Your task to perform on an android device: open chrome and create a bookmark for the current page Image 0: 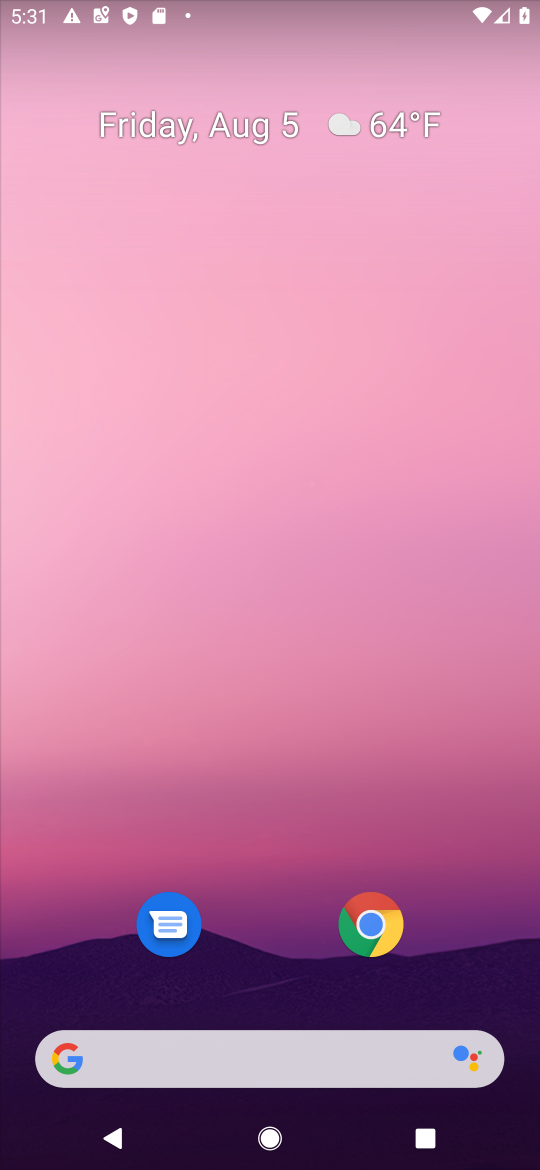
Step 0: click (385, 918)
Your task to perform on an android device: open chrome and create a bookmark for the current page Image 1: 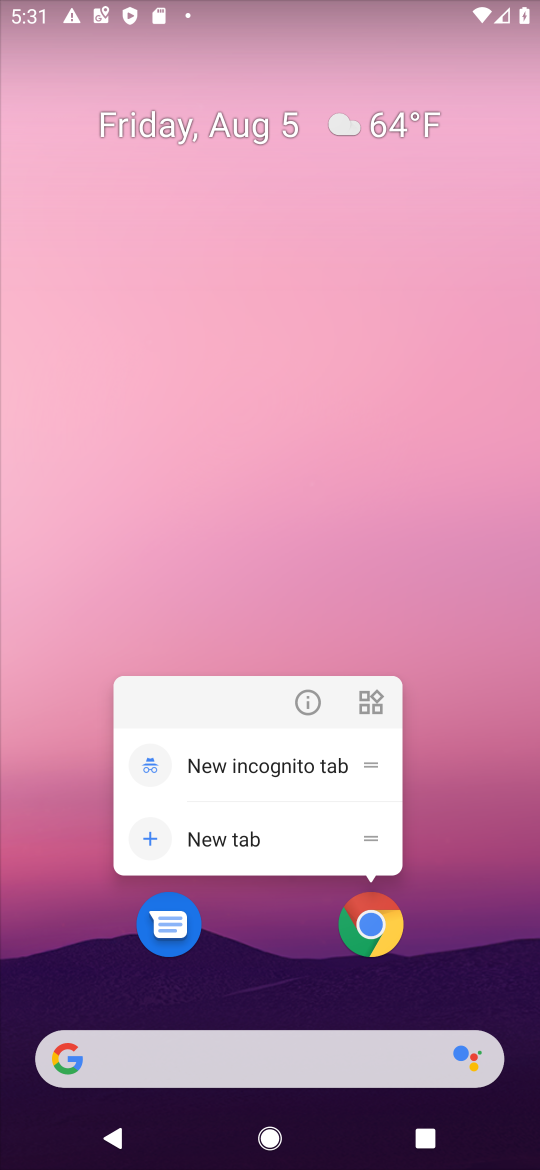
Step 1: click (389, 898)
Your task to perform on an android device: open chrome and create a bookmark for the current page Image 2: 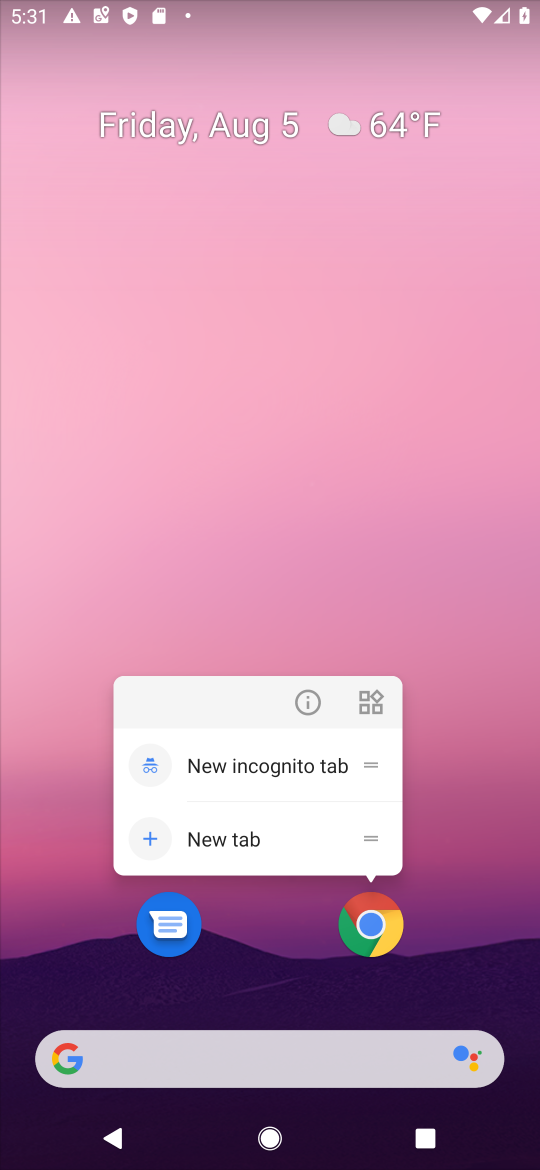
Step 2: click (383, 908)
Your task to perform on an android device: open chrome and create a bookmark for the current page Image 3: 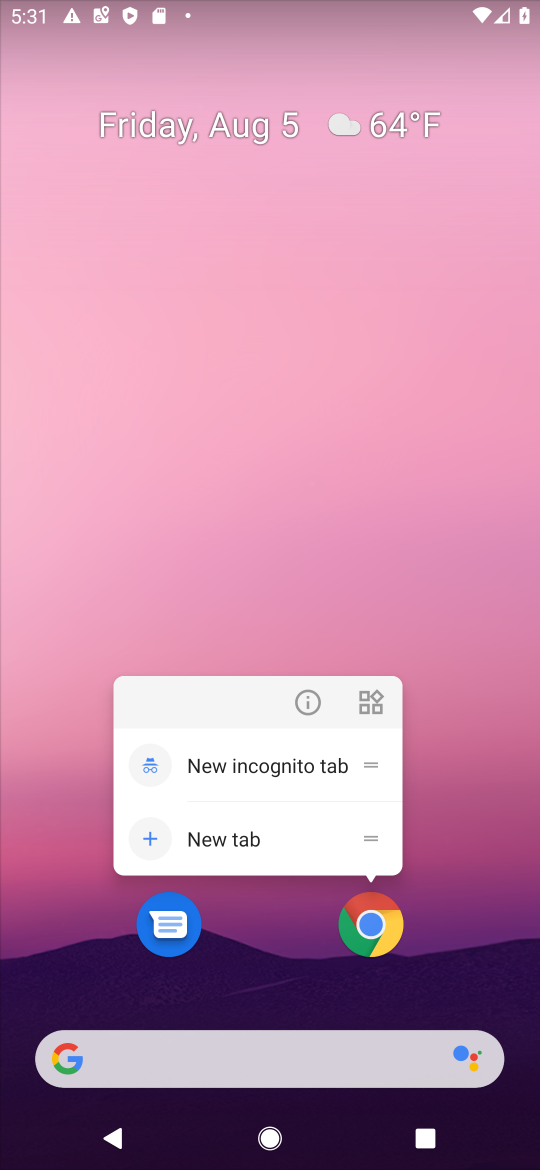
Step 3: click (383, 908)
Your task to perform on an android device: open chrome and create a bookmark for the current page Image 4: 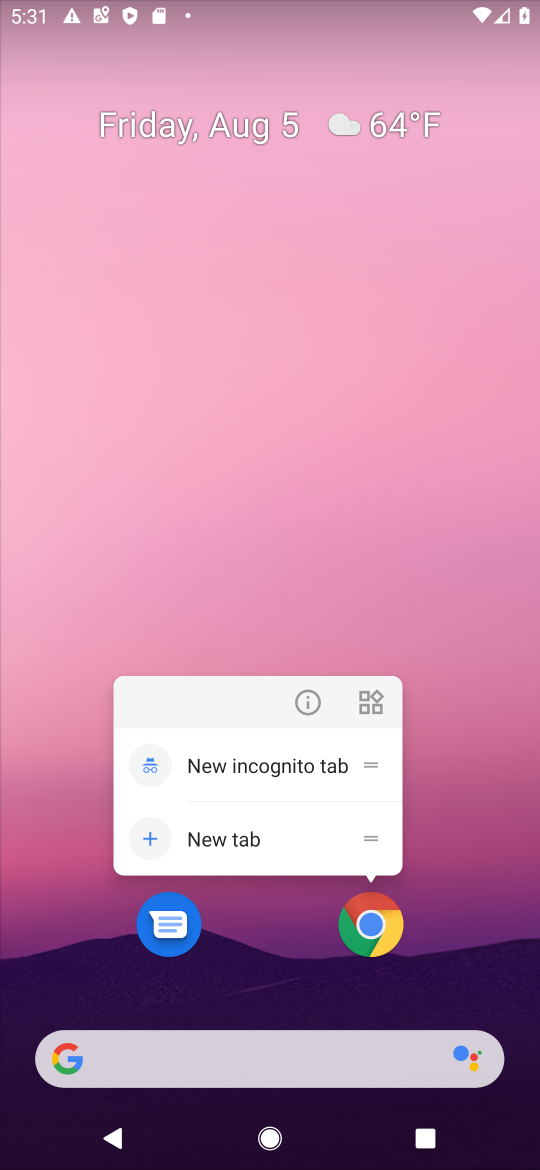
Step 4: click (383, 908)
Your task to perform on an android device: open chrome and create a bookmark for the current page Image 5: 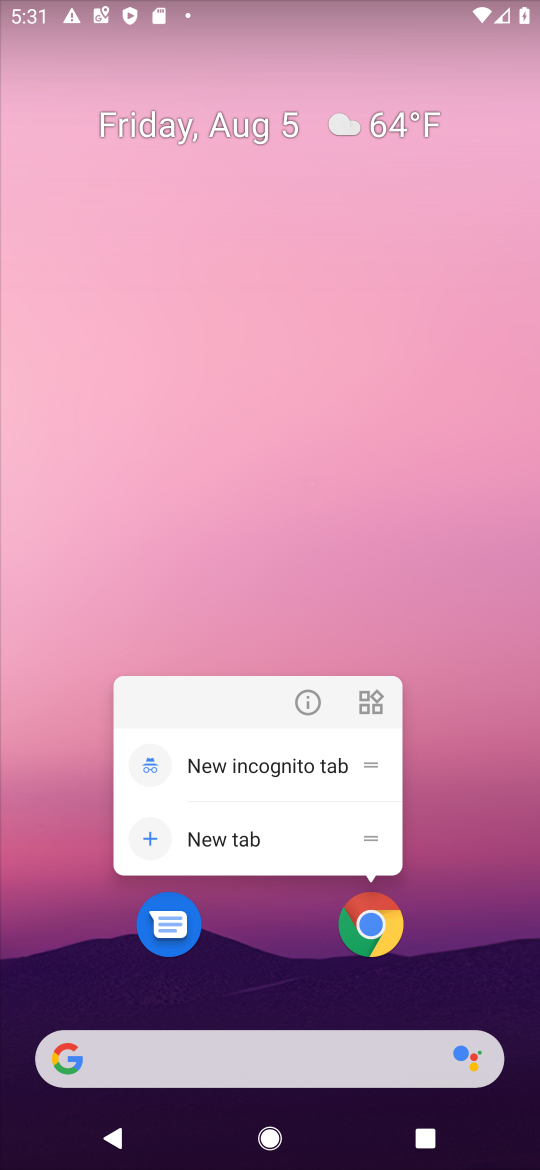
Step 5: click (383, 908)
Your task to perform on an android device: open chrome and create a bookmark for the current page Image 6: 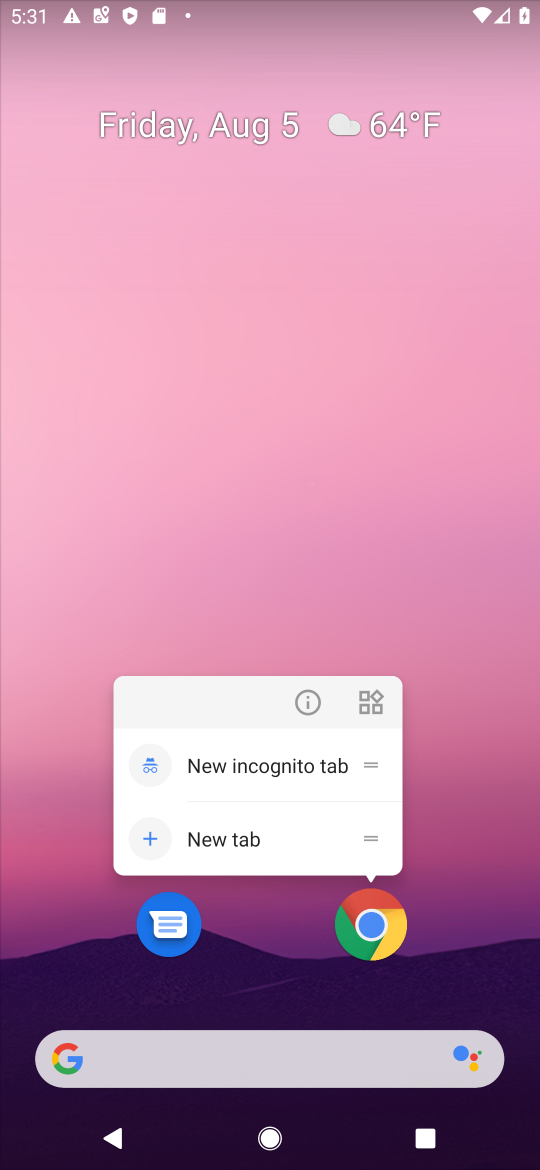
Step 6: click (383, 908)
Your task to perform on an android device: open chrome and create a bookmark for the current page Image 7: 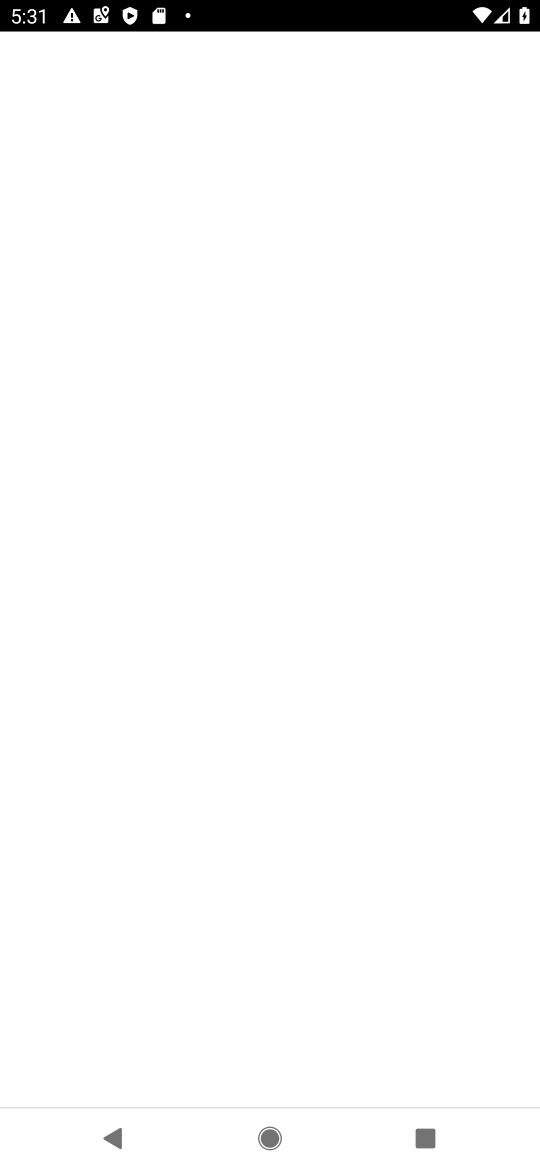
Step 7: click (383, 908)
Your task to perform on an android device: open chrome and create a bookmark for the current page Image 8: 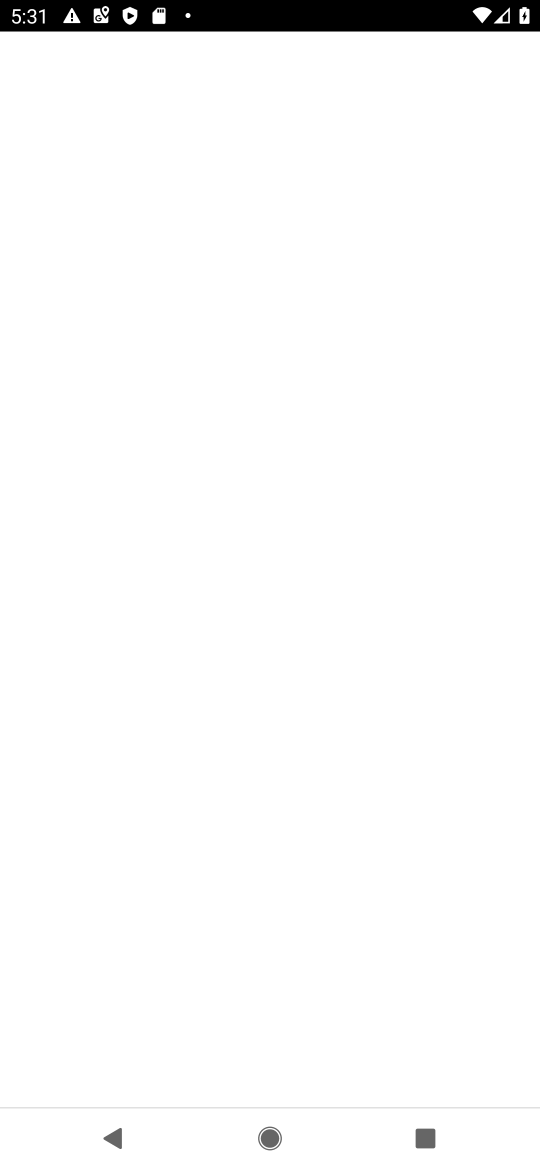
Step 8: click (383, 908)
Your task to perform on an android device: open chrome and create a bookmark for the current page Image 9: 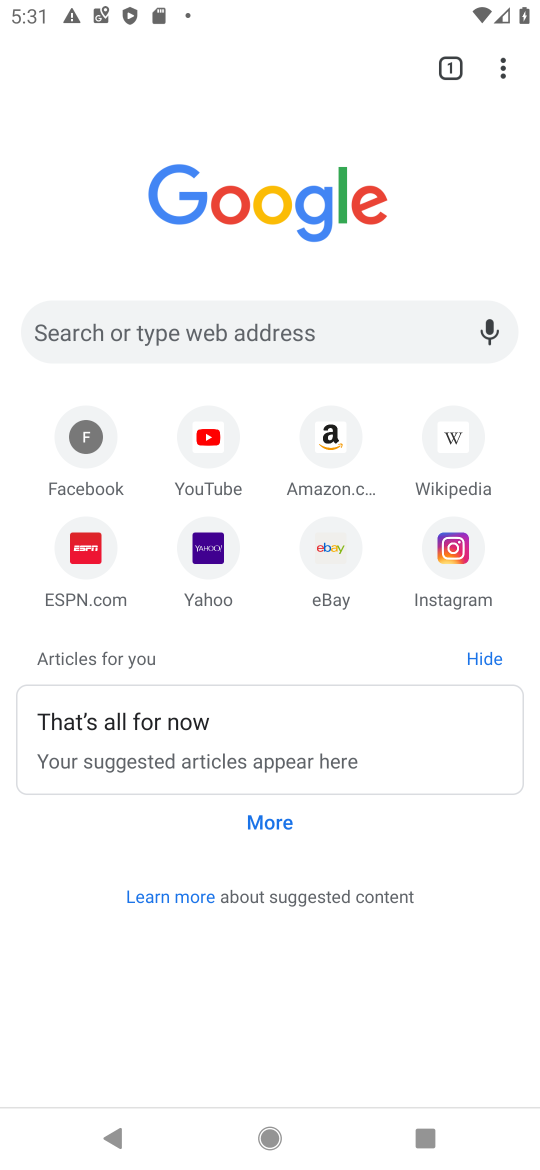
Step 9: click (498, 57)
Your task to perform on an android device: open chrome and create a bookmark for the current page Image 10: 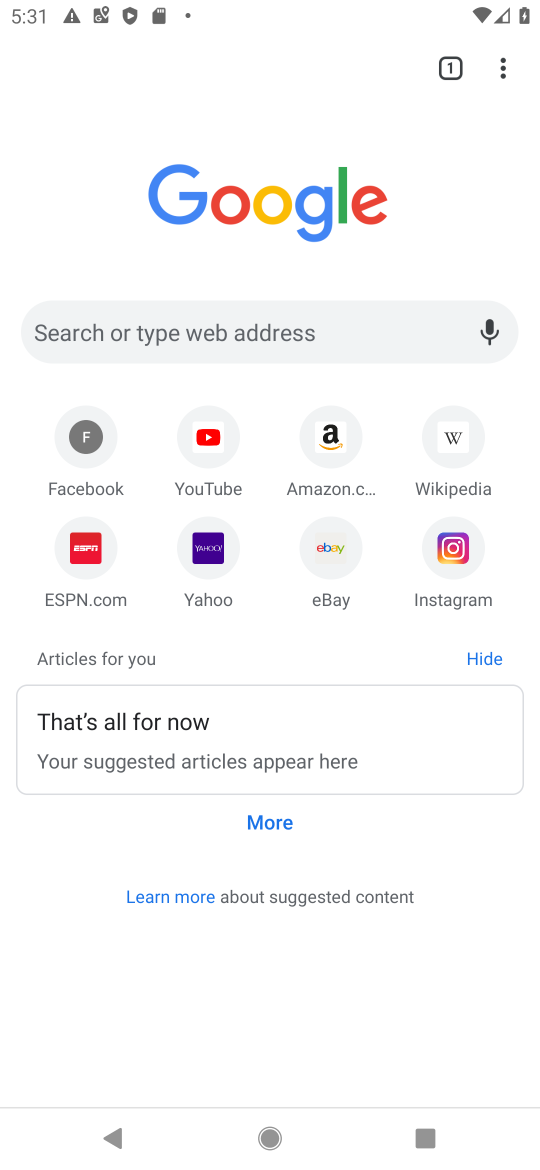
Step 10: click (507, 64)
Your task to perform on an android device: open chrome and create a bookmark for the current page Image 11: 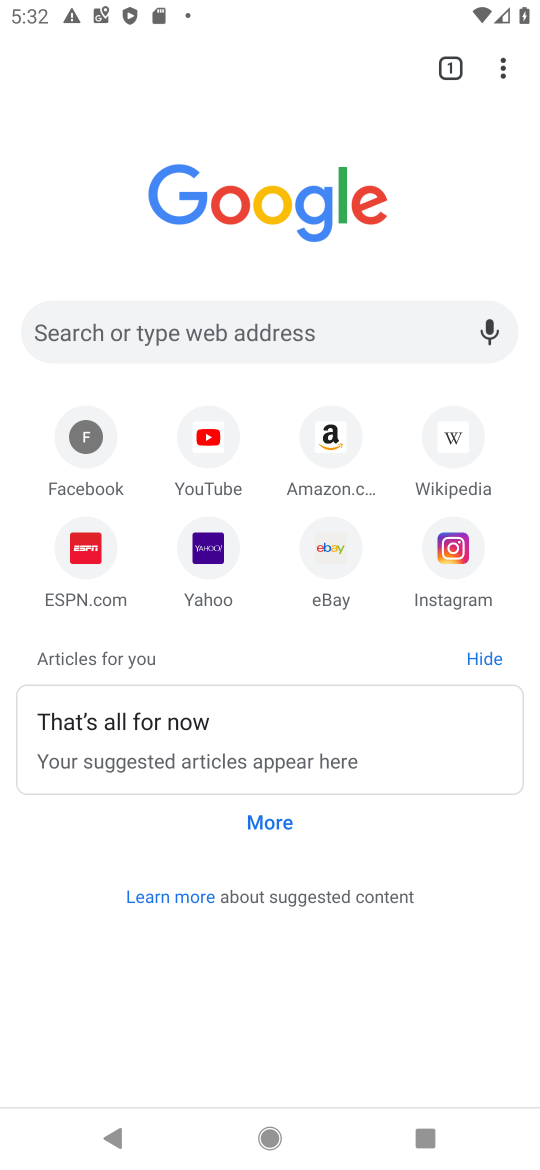
Step 11: click (509, 72)
Your task to perform on an android device: open chrome and create a bookmark for the current page Image 12: 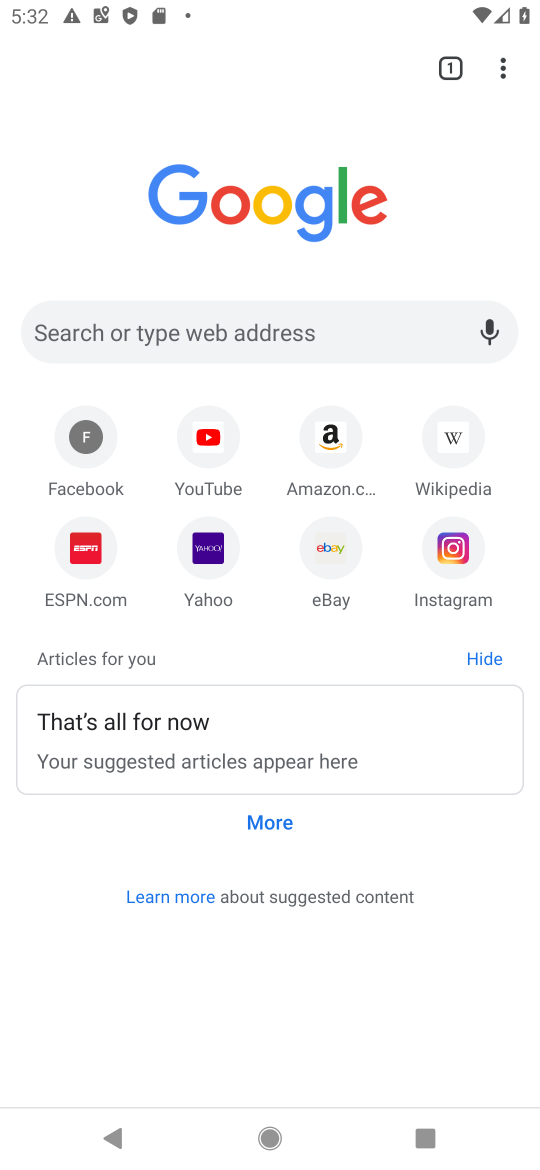
Step 12: click (497, 60)
Your task to perform on an android device: open chrome and create a bookmark for the current page Image 13: 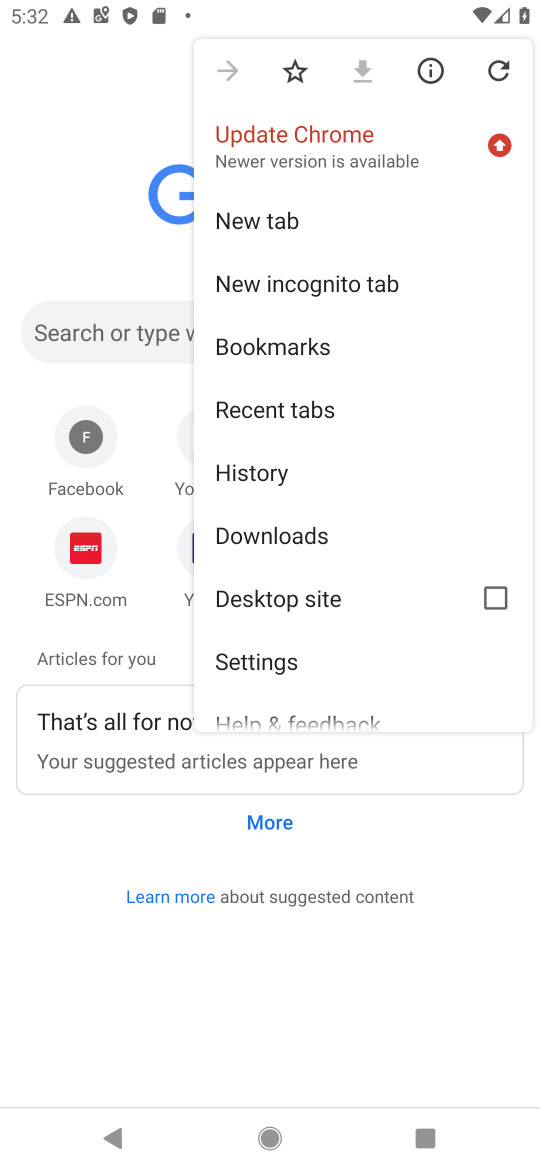
Step 13: click (294, 72)
Your task to perform on an android device: open chrome and create a bookmark for the current page Image 14: 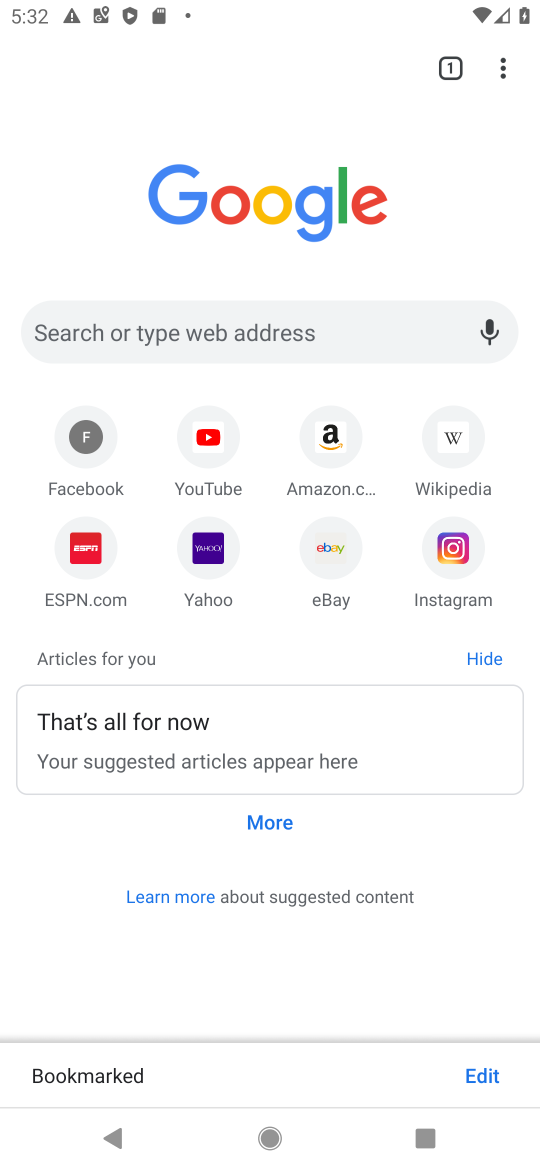
Step 14: task complete